Your task to perform on an android device: Go to ESPN.com Image 0: 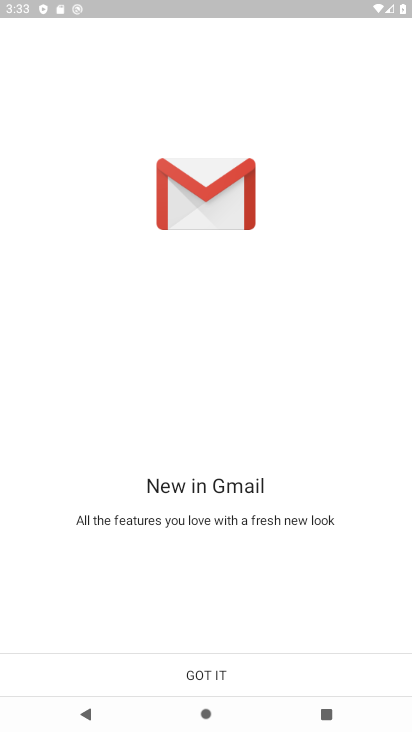
Step 0: press home button
Your task to perform on an android device: Go to ESPN.com Image 1: 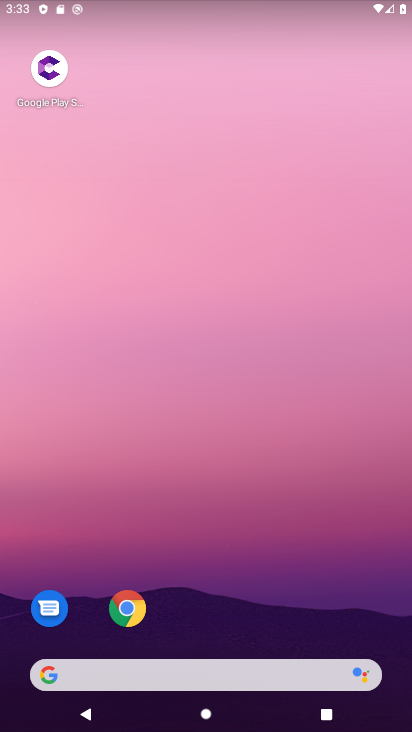
Step 1: click (123, 610)
Your task to perform on an android device: Go to ESPN.com Image 2: 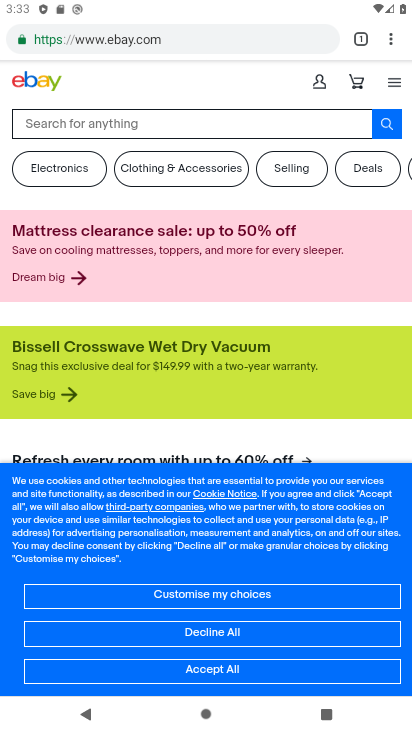
Step 2: click (389, 43)
Your task to perform on an android device: Go to ESPN.com Image 3: 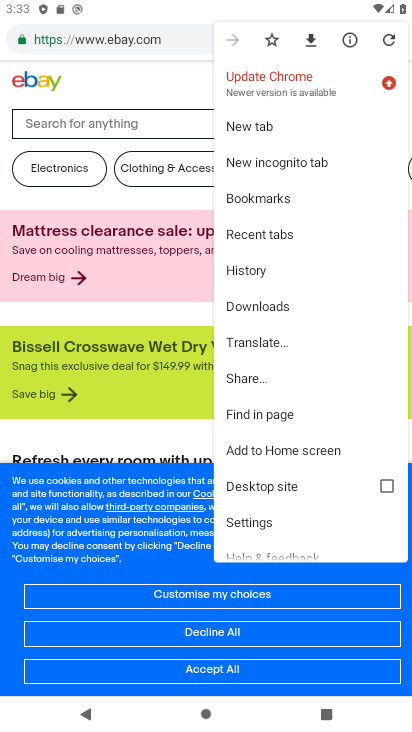
Step 3: click (258, 126)
Your task to perform on an android device: Go to ESPN.com Image 4: 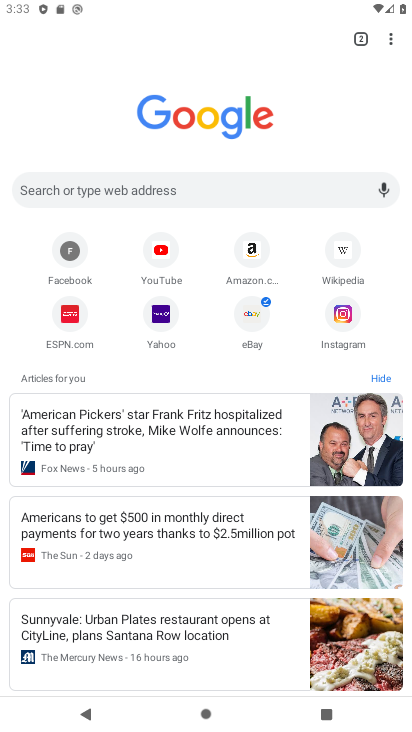
Step 4: click (69, 315)
Your task to perform on an android device: Go to ESPN.com Image 5: 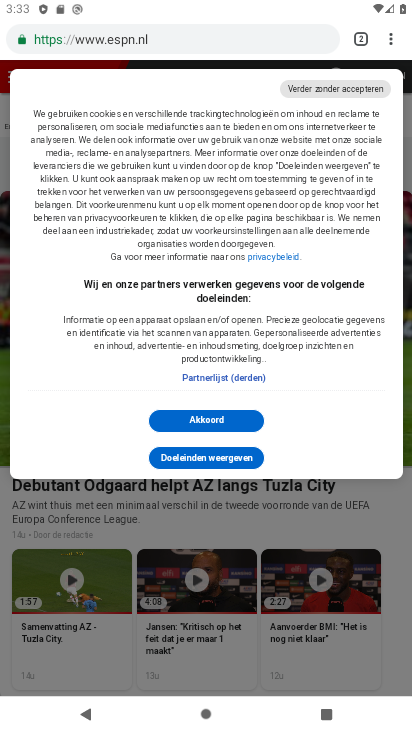
Step 5: click (198, 421)
Your task to perform on an android device: Go to ESPN.com Image 6: 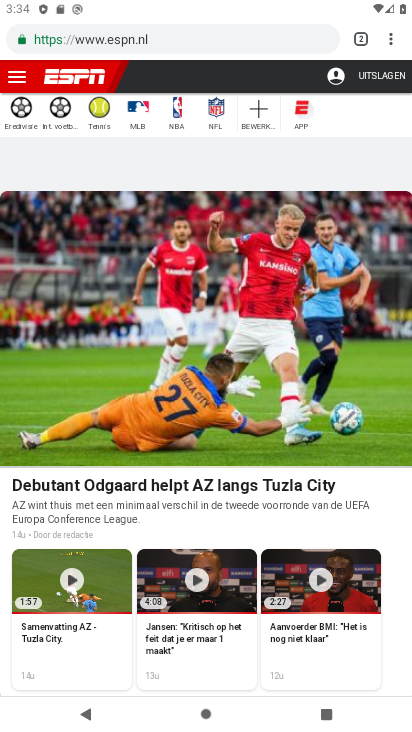
Step 6: task complete